Your task to perform on an android device: toggle notification dots Image 0: 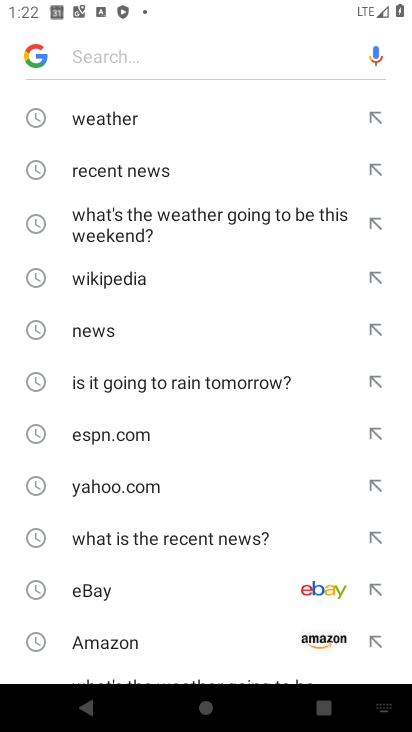
Step 0: press home button
Your task to perform on an android device: toggle notification dots Image 1: 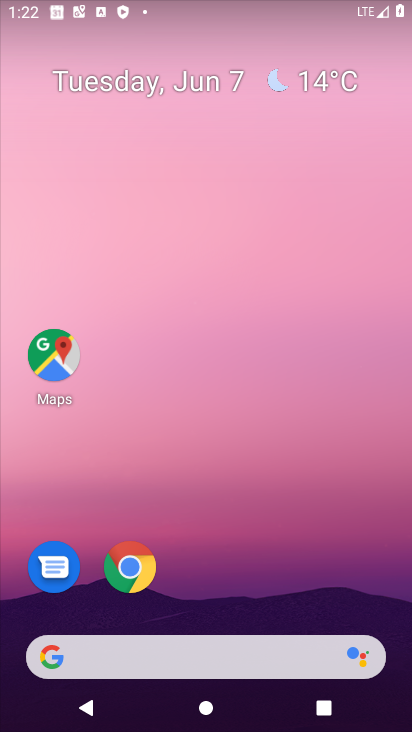
Step 1: drag from (252, 658) to (277, 79)
Your task to perform on an android device: toggle notification dots Image 2: 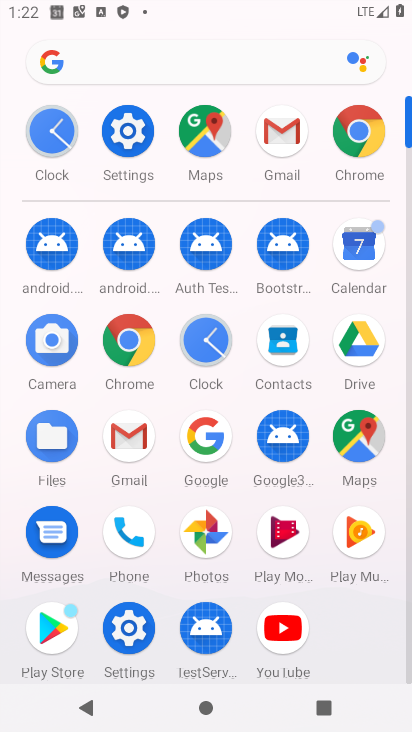
Step 2: click (143, 155)
Your task to perform on an android device: toggle notification dots Image 3: 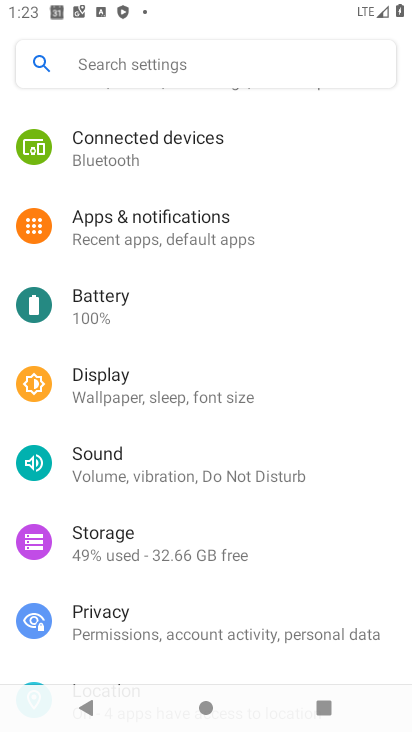
Step 3: click (173, 218)
Your task to perform on an android device: toggle notification dots Image 4: 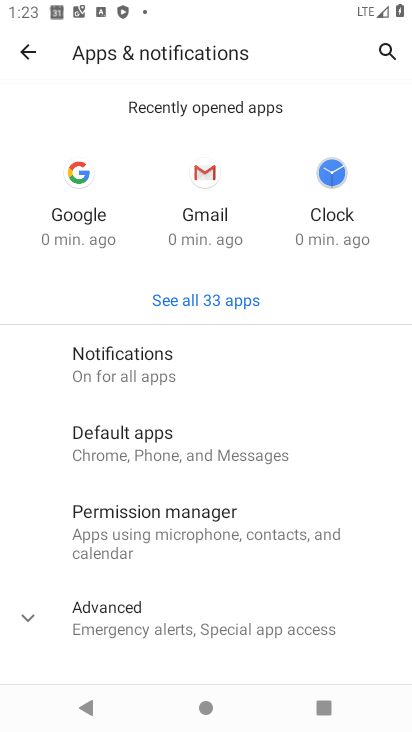
Step 4: click (178, 366)
Your task to perform on an android device: toggle notification dots Image 5: 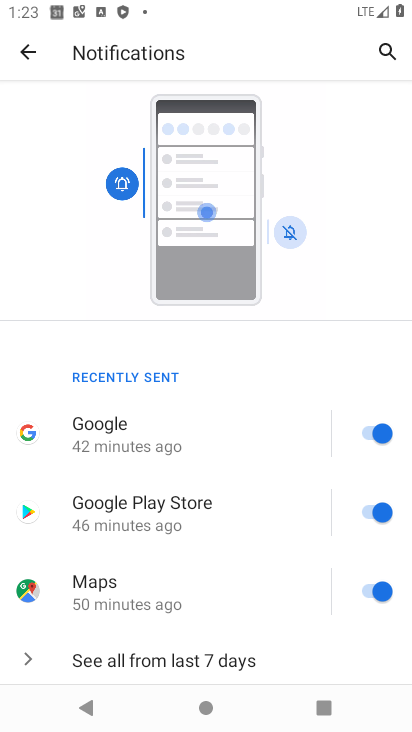
Step 5: drag from (176, 675) to (203, 286)
Your task to perform on an android device: toggle notification dots Image 6: 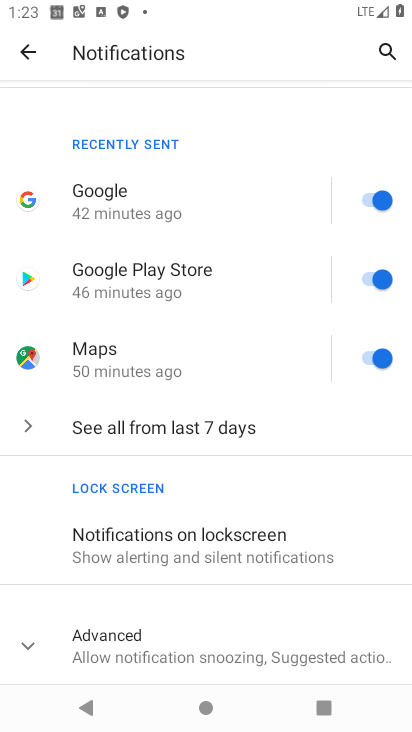
Step 6: click (229, 564)
Your task to perform on an android device: toggle notification dots Image 7: 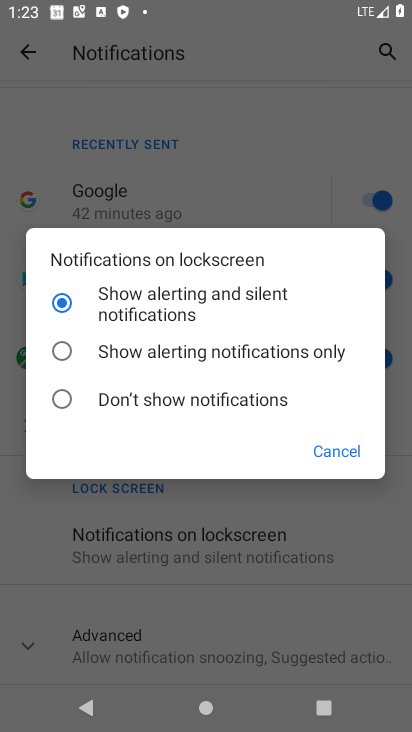
Step 7: click (344, 444)
Your task to perform on an android device: toggle notification dots Image 8: 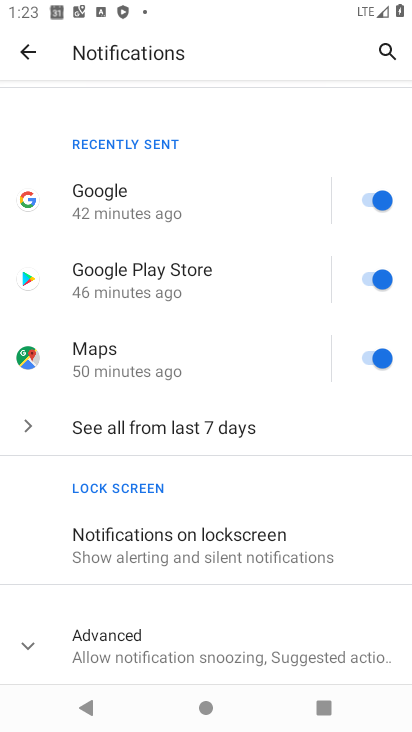
Step 8: click (332, 653)
Your task to perform on an android device: toggle notification dots Image 9: 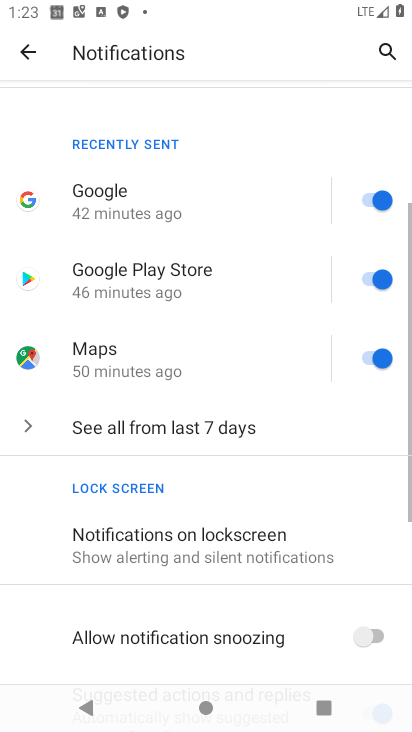
Step 9: drag from (330, 615) to (308, 258)
Your task to perform on an android device: toggle notification dots Image 10: 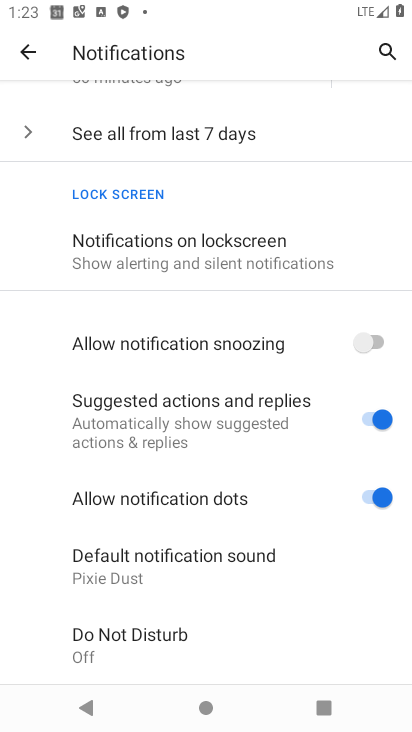
Step 10: click (377, 490)
Your task to perform on an android device: toggle notification dots Image 11: 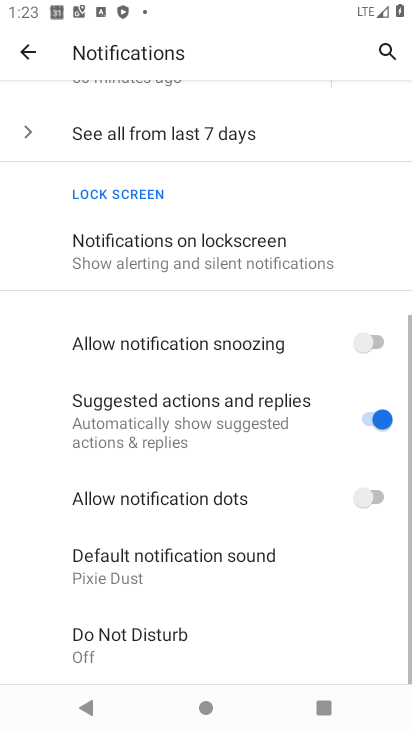
Step 11: task complete